Your task to perform on an android device: toggle airplane mode Image 0: 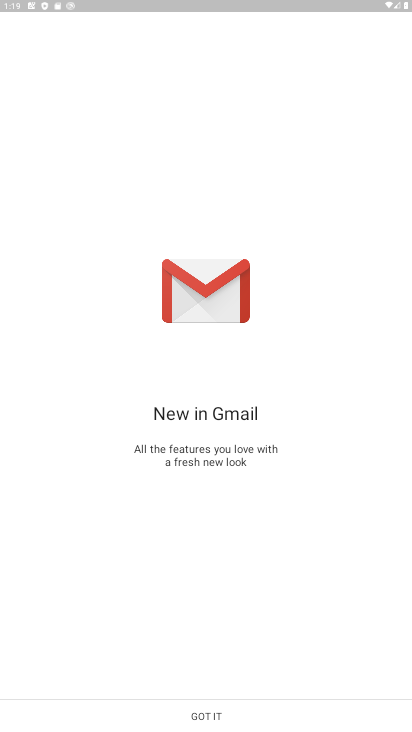
Step 0: press home button
Your task to perform on an android device: toggle airplane mode Image 1: 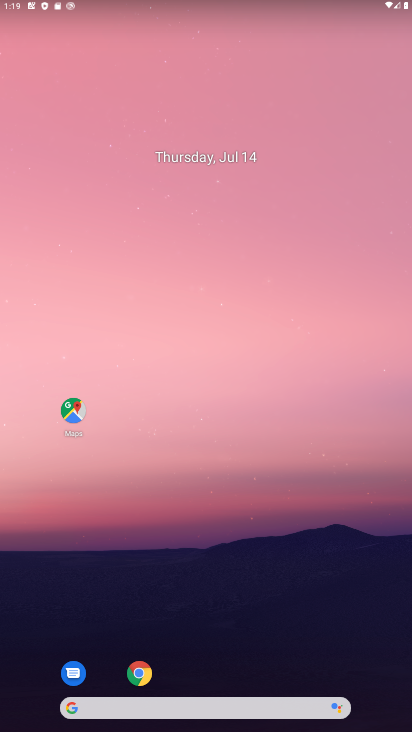
Step 1: drag from (274, 603) to (323, 41)
Your task to perform on an android device: toggle airplane mode Image 2: 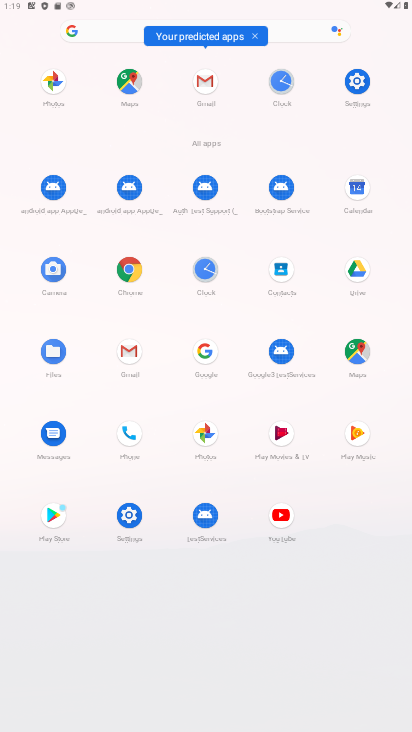
Step 2: click (346, 95)
Your task to perform on an android device: toggle airplane mode Image 3: 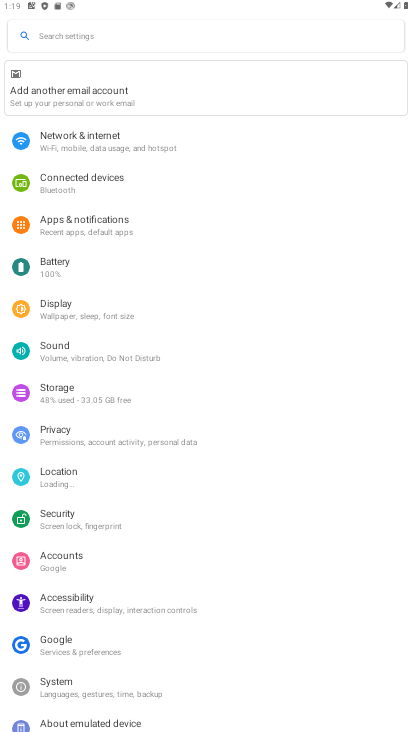
Step 3: click (83, 146)
Your task to perform on an android device: toggle airplane mode Image 4: 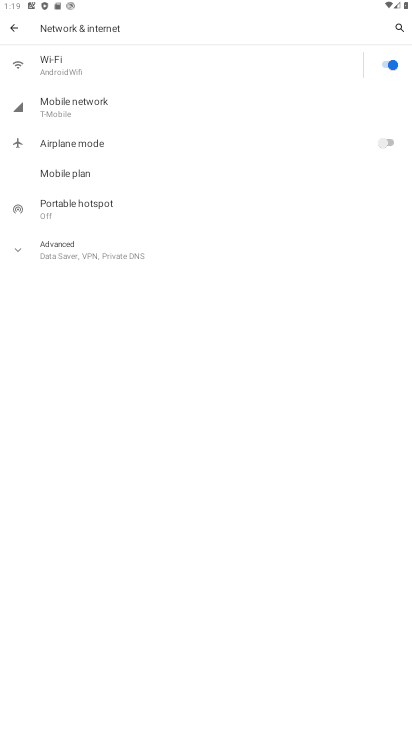
Step 4: click (399, 139)
Your task to perform on an android device: toggle airplane mode Image 5: 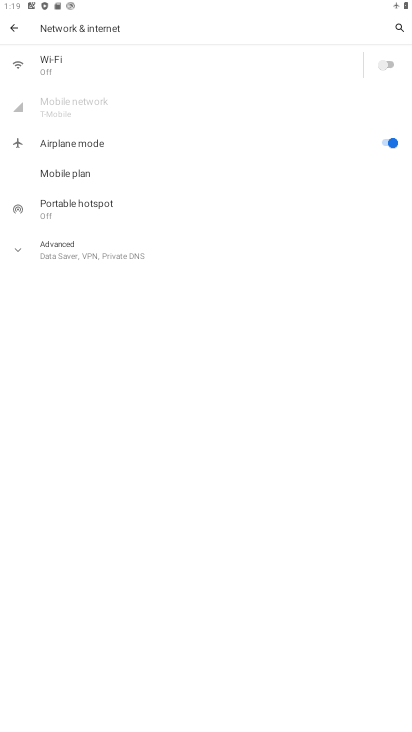
Step 5: task complete